Your task to perform on an android device: Go to Google Image 0: 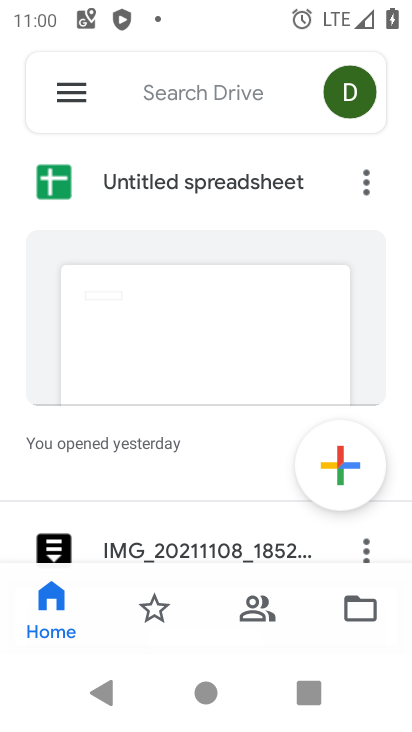
Step 0: press home button
Your task to perform on an android device: Go to Google Image 1: 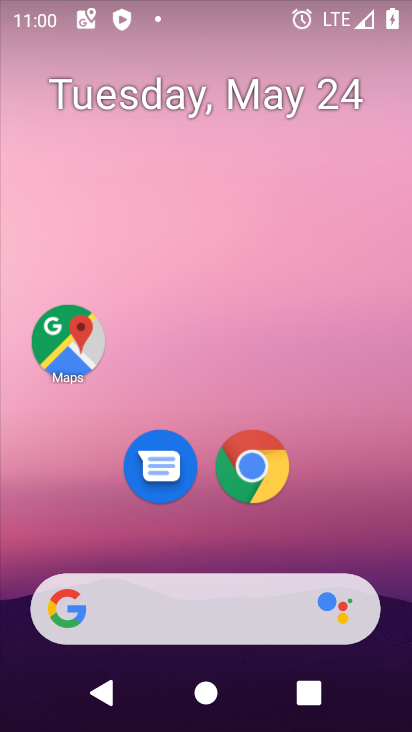
Step 1: drag from (364, 550) to (366, 199)
Your task to perform on an android device: Go to Google Image 2: 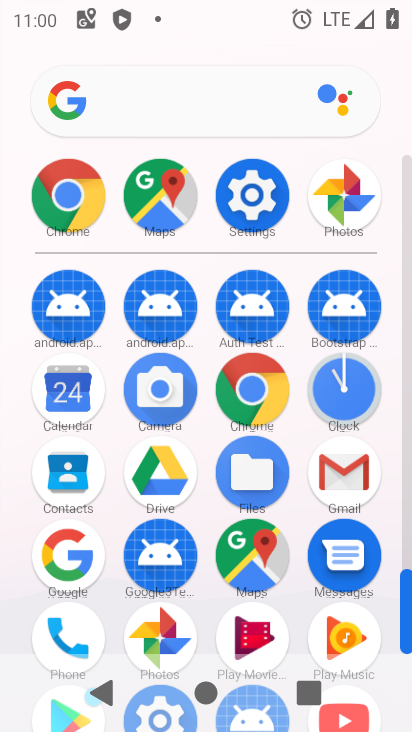
Step 2: click (66, 559)
Your task to perform on an android device: Go to Google Image 3: 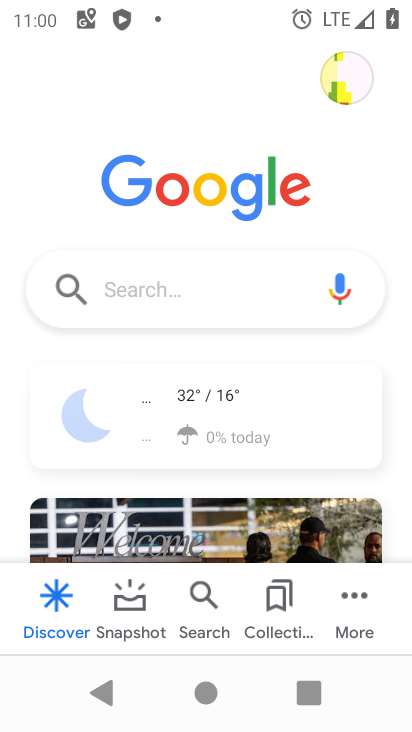
Step 3: task complete